Your task to perform on an android device: Open the calendar and show me this week's events? Image 0: 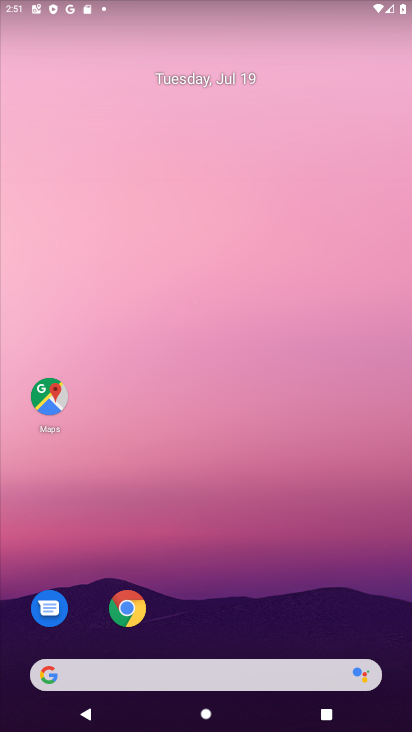
Step 0: drag from (306, 625) to (356, 80)
Your task to perform on an android device: Open the calendar and show me this week's events? Image 1: 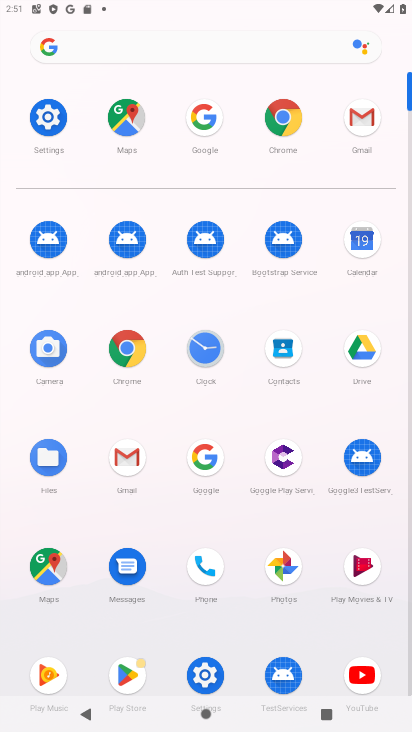
Step 1: click (371, 241)
Your task to perform on an android device: Open the calendar and show me this week's events? Image 2: 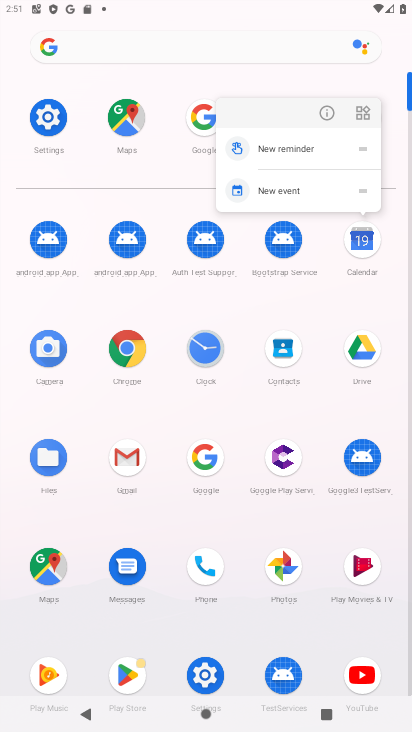
Step 2: click (361, 236)
Your task to perform on an android device: Open the calendar and show me this week's events? Image 3: 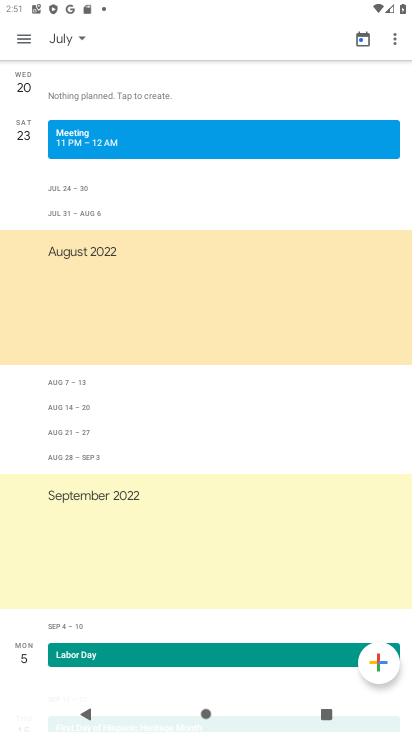
Step 3: click (75, 41)
Your task to perform on an android device: Open the calendar and show me this week's events? Image 4: 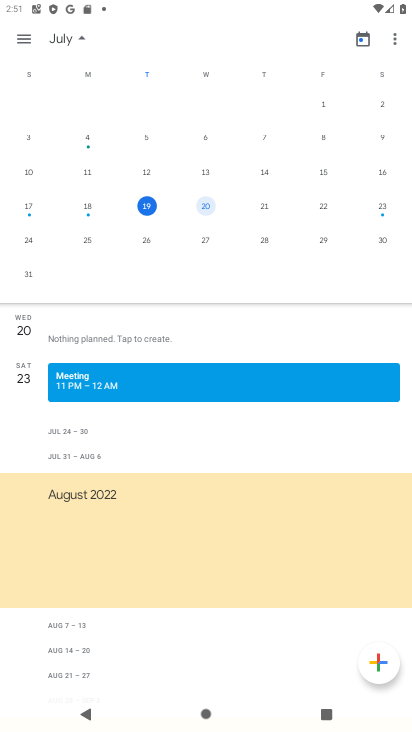
Step 4: click (25, 37)
Your task to perform on an android device: Open the calendar and show me this week's events? Image 5: 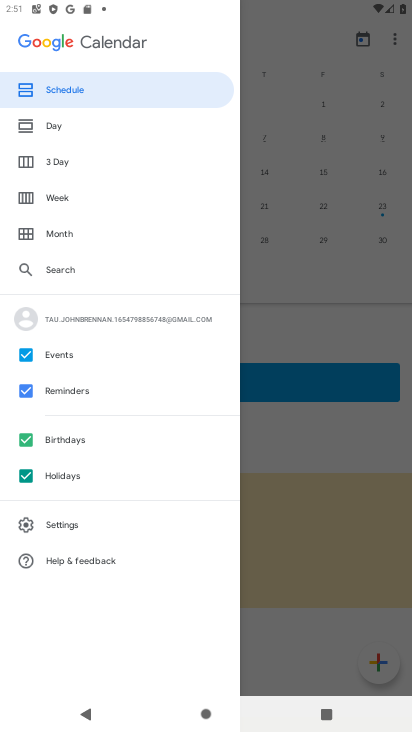
Step 5: click (62, 193)
Your task to perform on an android device: Open the calendar and show me this week's events? Image 6: 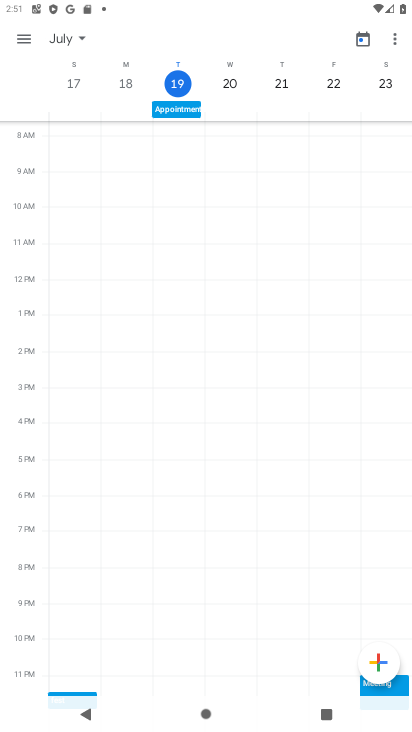
Step 6: task complete